Your task to perform on an android device: set default search engine in the chrome app Image 0: 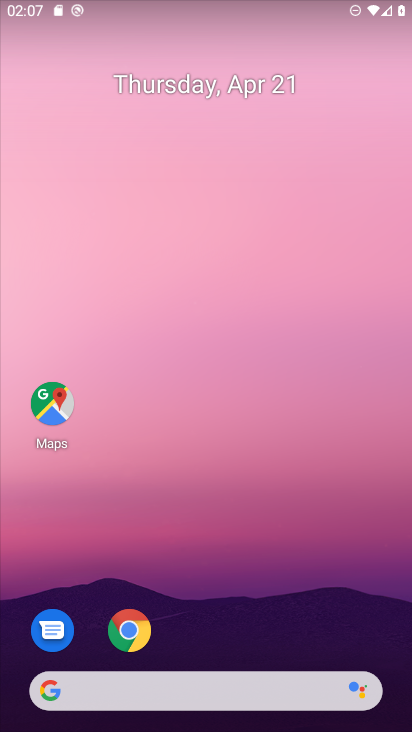
Step 0: click (139, 627)
Your task to perform on an android device: set default search engine in the chrome app Image 1: 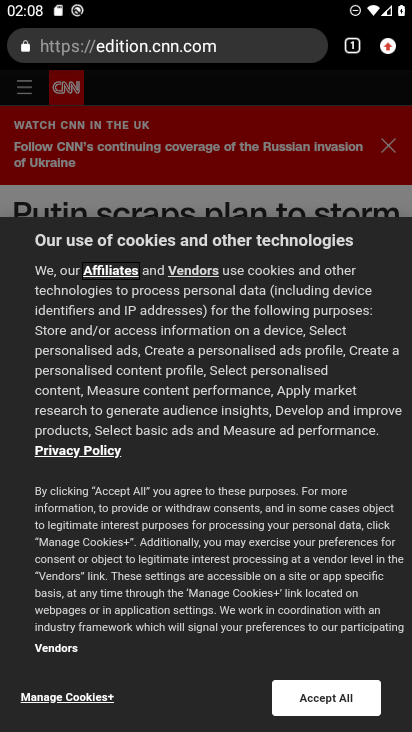
Step 1: click (382, 51)
Your task to perform on an android device: set default search engine in the chrome app Image 2: 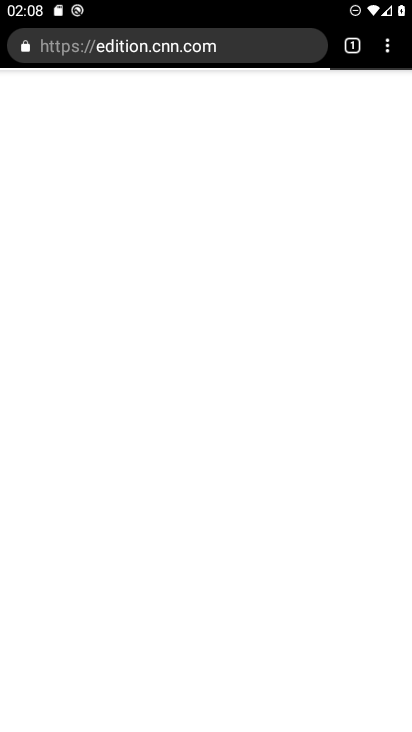
Step 2: click (388, 51)
Your task to perform on an android device: set default search engine in the chrome app Image 3: 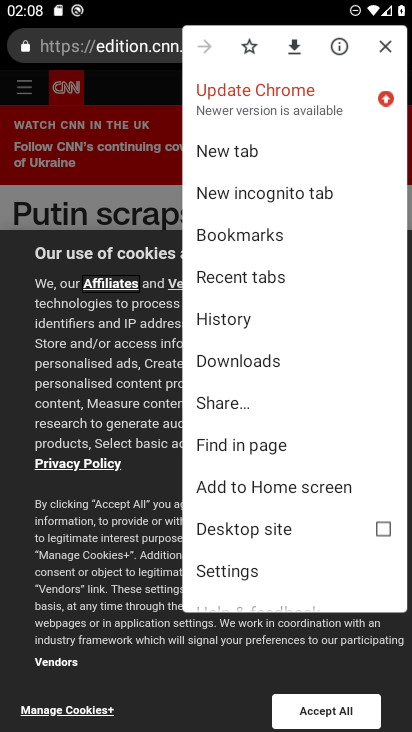
Step 3: click (256, 573)
Your task to perform on an android device: set default search engine in the chrome app Image 4: 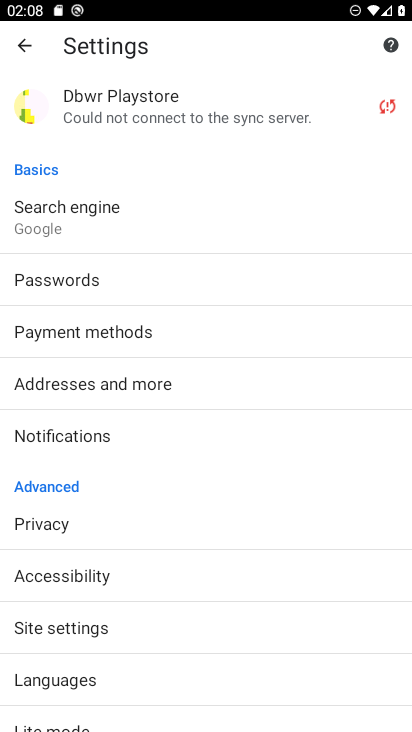
Step 4: click (168, 658)
Your task to perform on an android device: set default search engine in the chrome app Image 5: 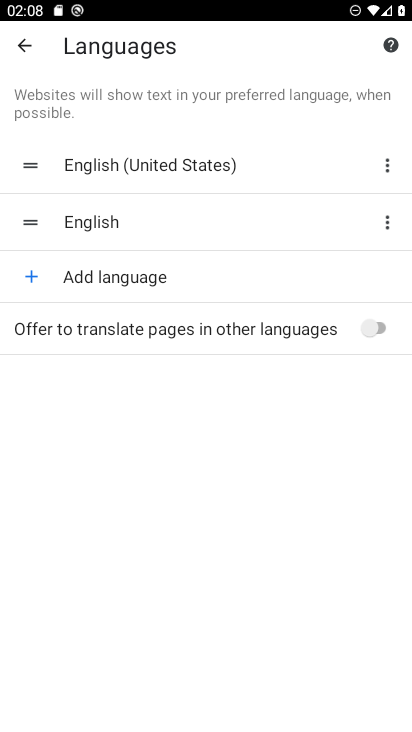
Step 5: press back button
Your task to perform on an android device: set default search engine in the chrome app Image 6: 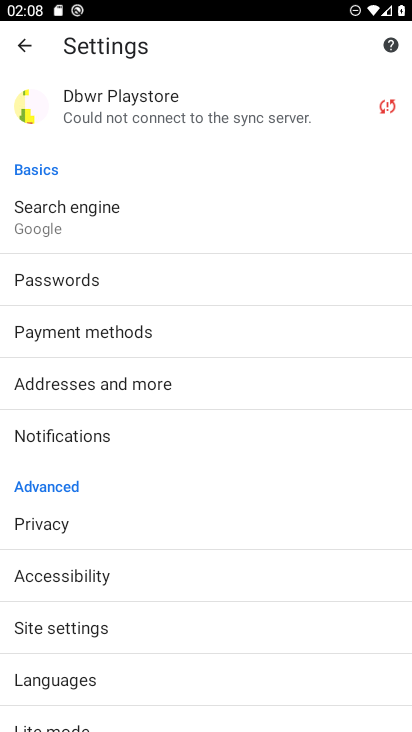
Step 6: click (210, 622)
Your task to perform on an android device: set default search engine in the chrome app Image 7: 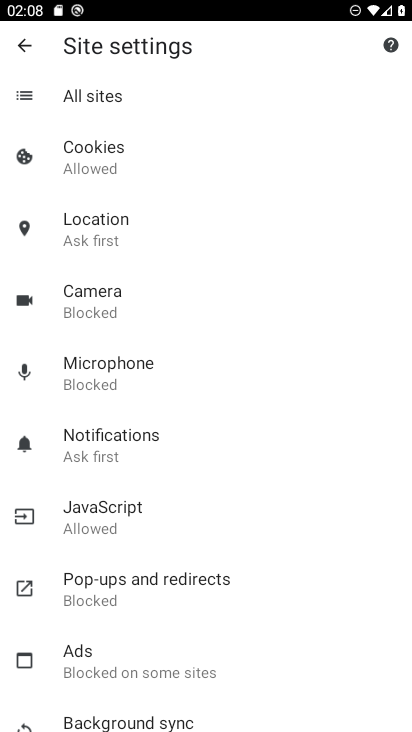
Step 7: press back button
Your task to perform on an android device: set default search engine in the chrome app Image 8: 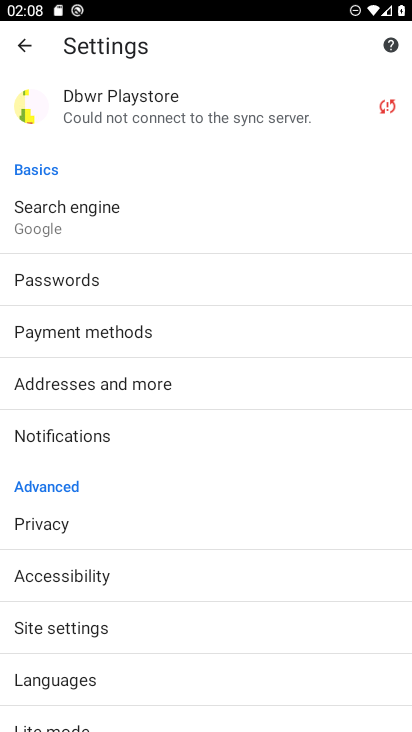
Step 8: click (223, 230)
Your task to perform on an android device: set default search engine in the chrome app Image 9: 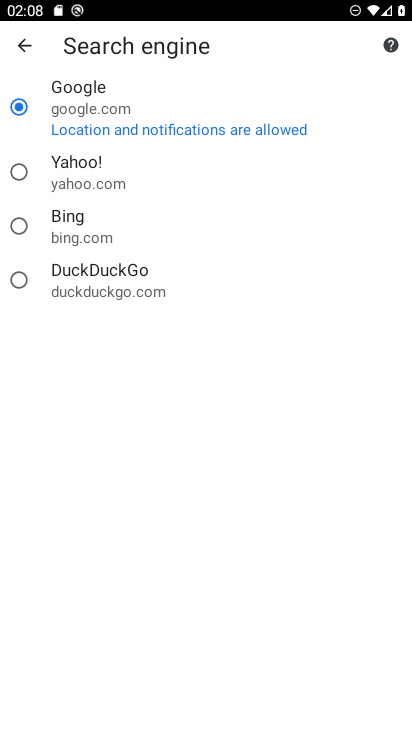
Step 9: click (182, 179)
Your task to perform on an android device: set default search engine in the chrome app Image 10: 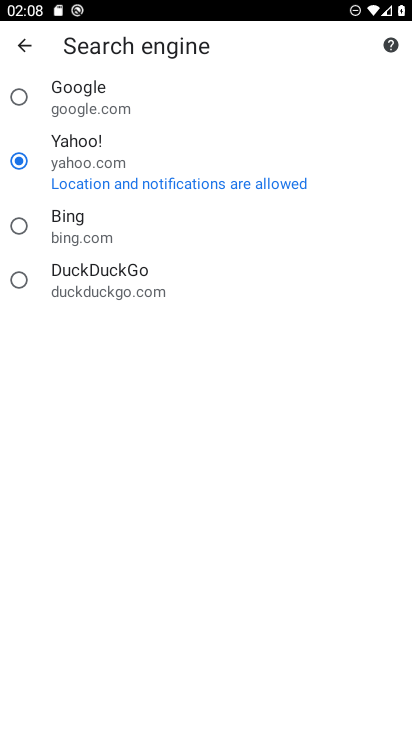
Step 10: task complete